Your task to perform on an android device: Open notification settings Image 0: 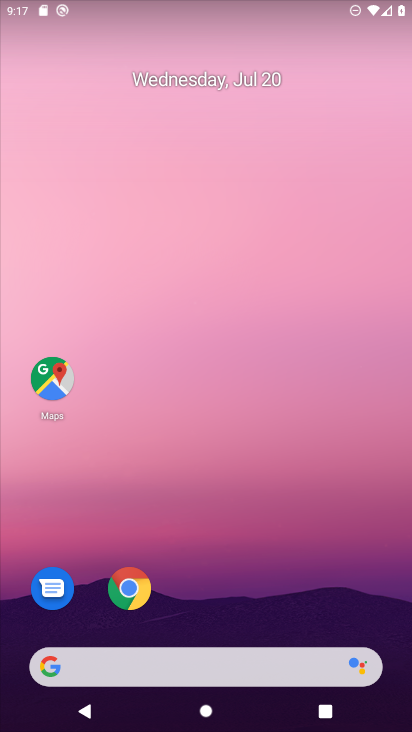
Step 0: drag from (159, 600) to (180, 73)
Your task to perform on an android device: Open notification settings Image 1: 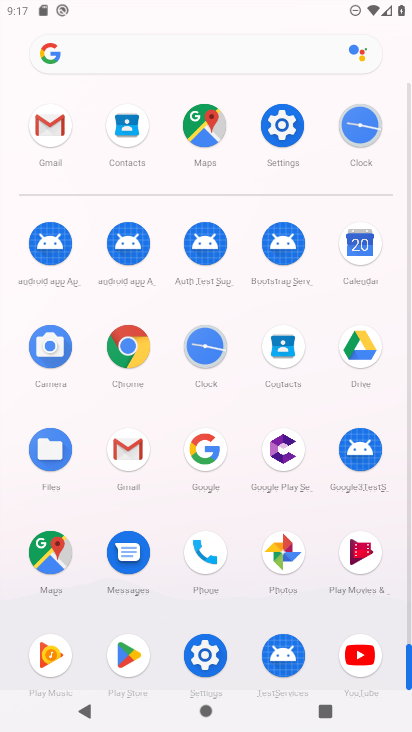
Step 1: click (274, 115)
Your task to perform on an android device: Open notification settings Image 2: 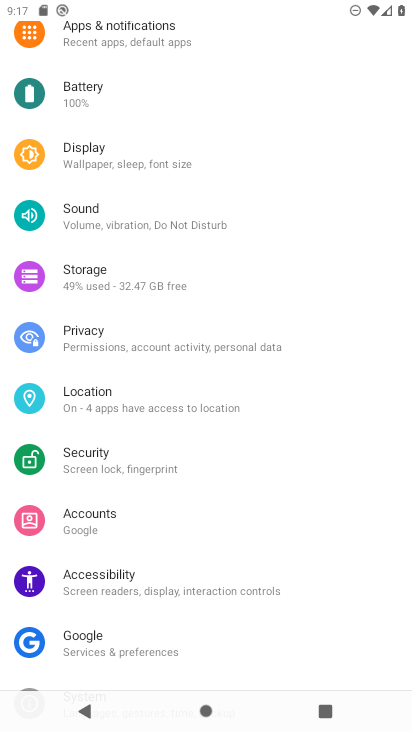
Step 2: click (137, 44)
Your task to perform on an android device: Open notification settings Image 3: 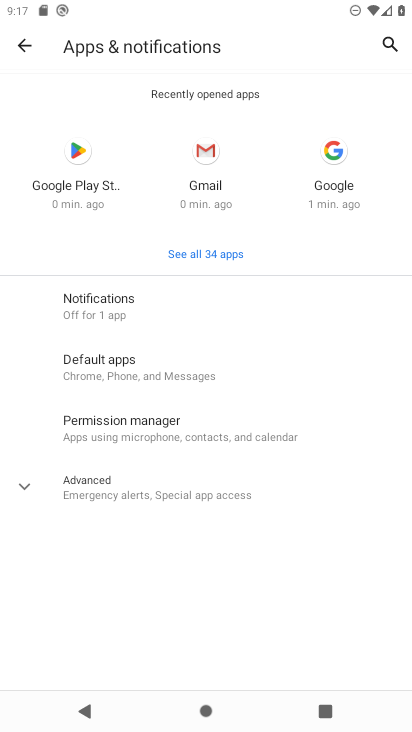
Step 3: task complete